Your task to perform on an android device: turn off notifications settings in the gmail app Image 0: 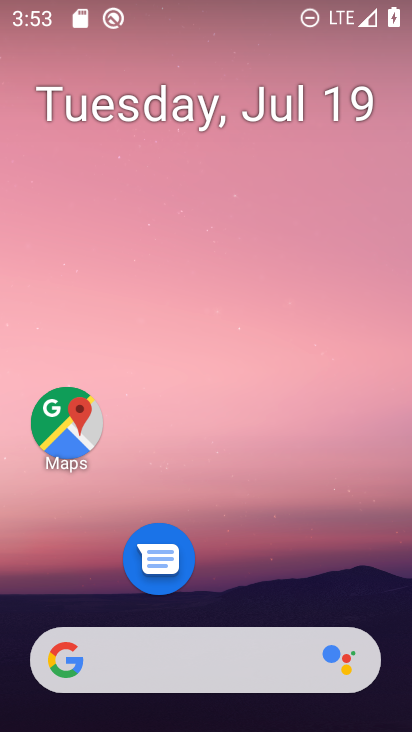
Step 0: drag from (184, 672) to (233, 244)
Your task to perform on an android device: turn off notifications settings in the gmail app Image 1: 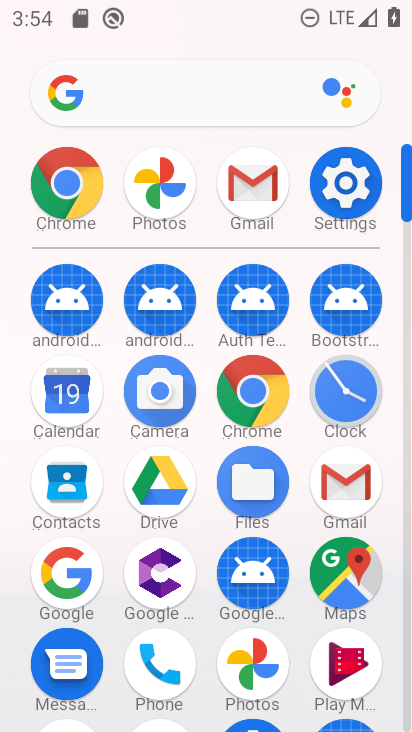
Step 1: click (354, 503)
Your task to perform on an android device: turn off notifications settings in the gmail app Image 2: 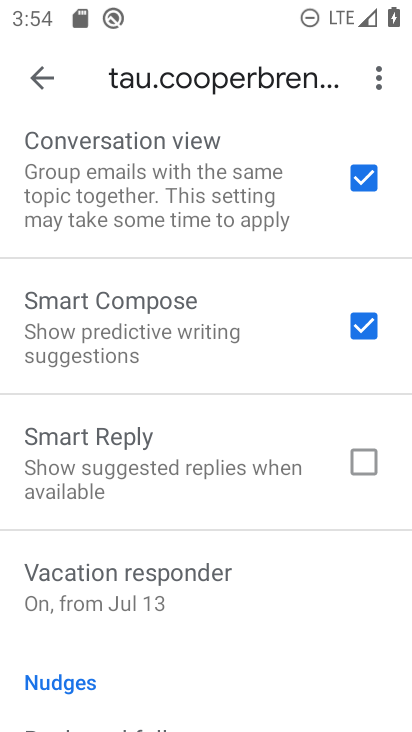
Step 2: click (50, 82)
Your task to perform on an android device: turn off notifications settings in the gmail app Image 3: 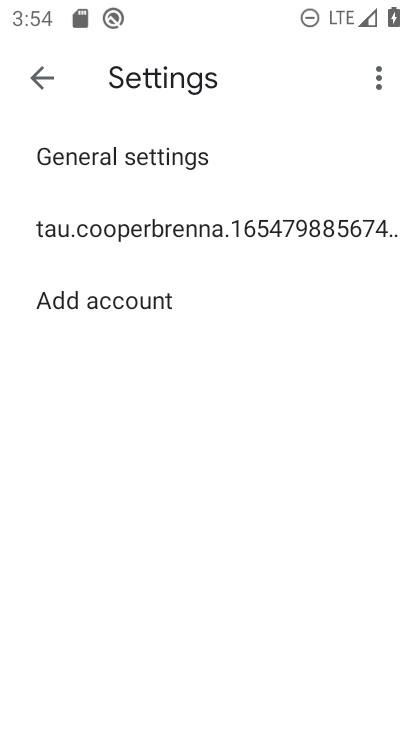
Step 3: click (85, 157)
Your task to perform on an android device: turn off notifications settings in the gmail app Image 4: 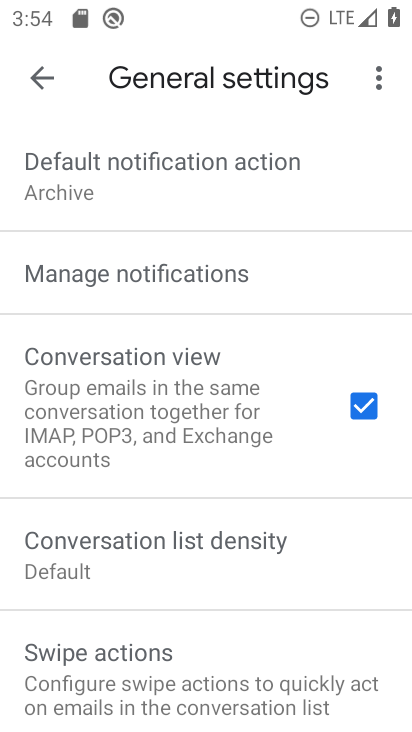
Step 4: click (79, 277)
Your task to perform on an android device: turn off notifications settings in the gmail app Image 5: 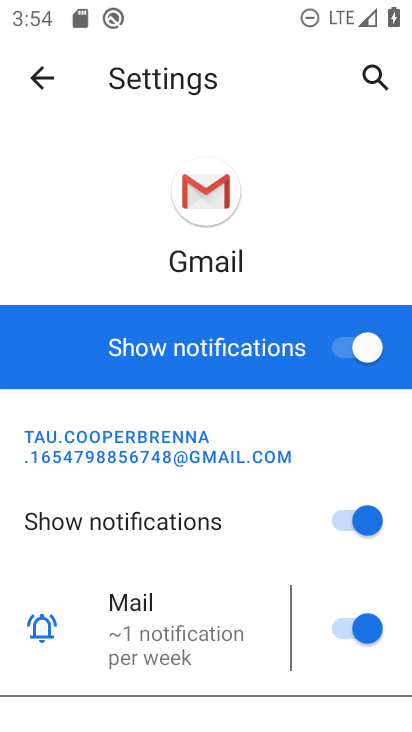
Step 5: click (166, 359)
Your task to perform on an android device: turn off notifications settings in the gmail app Image 6: 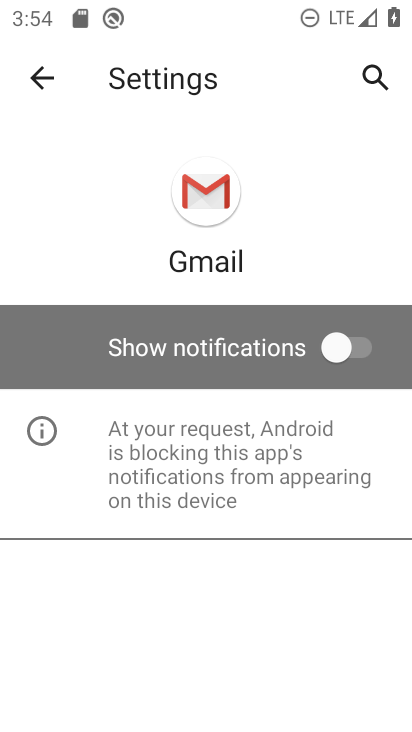
Step 6: task complete